Your task to perform on an android device: check google app version Image 0: 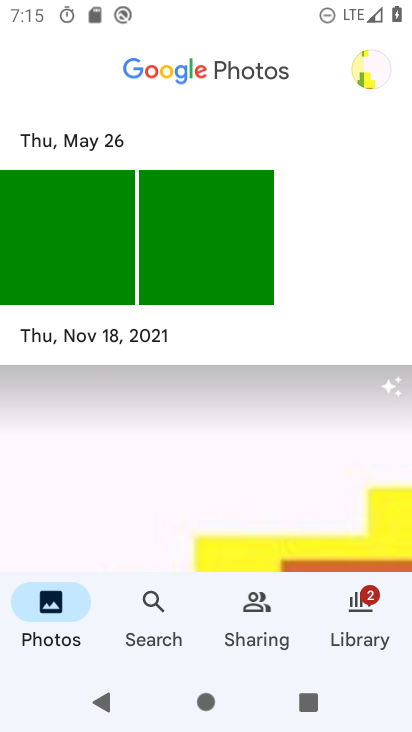
Step 0: press home button
Your task to perform on an android device: check google app version Image 1: 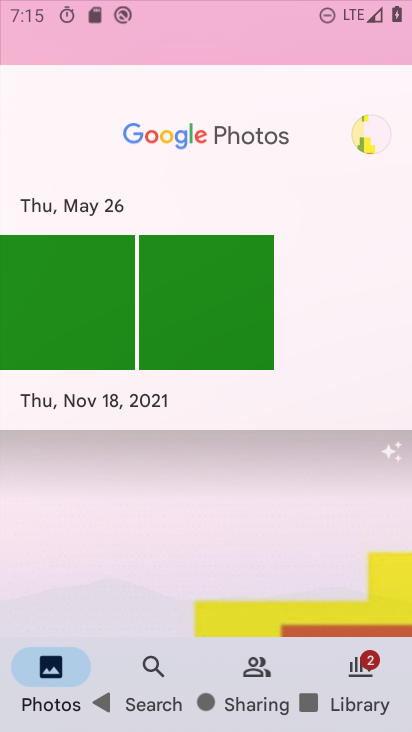
Step 1: drag from (362, 609) to (222, 60)
Your task to perform on an android device: check google app version Image 2: 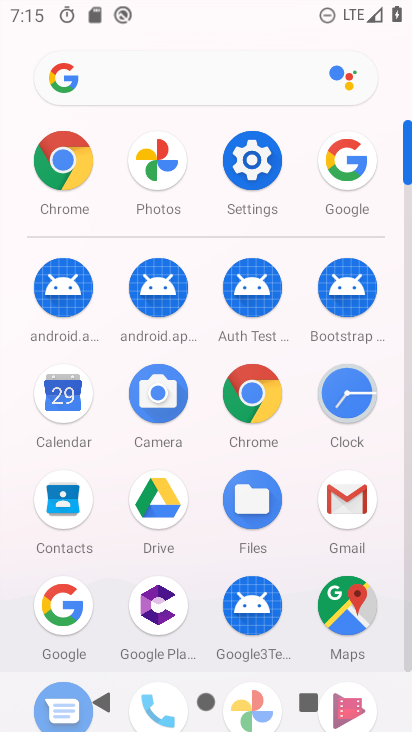
Step 2: click (247, 157)
Your task to perform on an android device: check google app version Image 3: 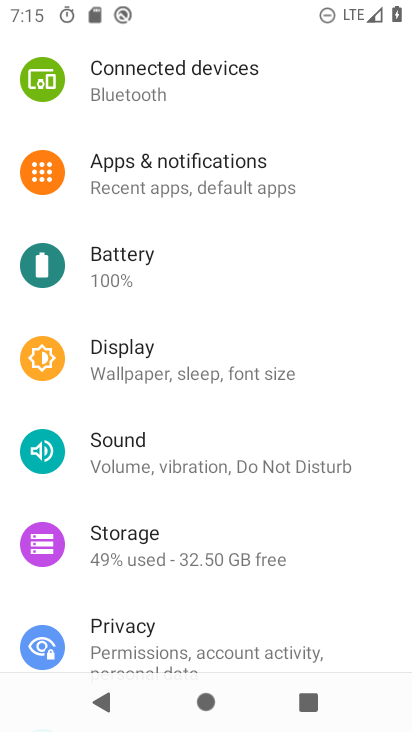
Step 3: drag from (206, 622) to (219, 71)
Your task to perform on an android device: check google app version Image 4: 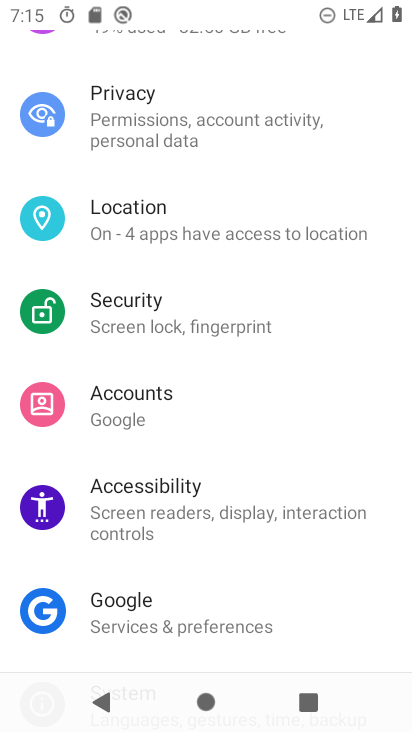
Step 4: drag from (231, 605) to (261, 57)
Your task to perform on an android device: check google app version Image 5: 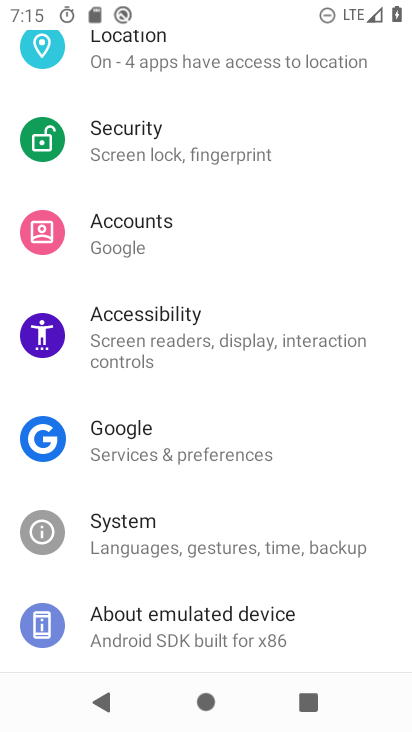
Step 5: click (215, 621)
Your task to perform on an android device: check google app version Image 6: 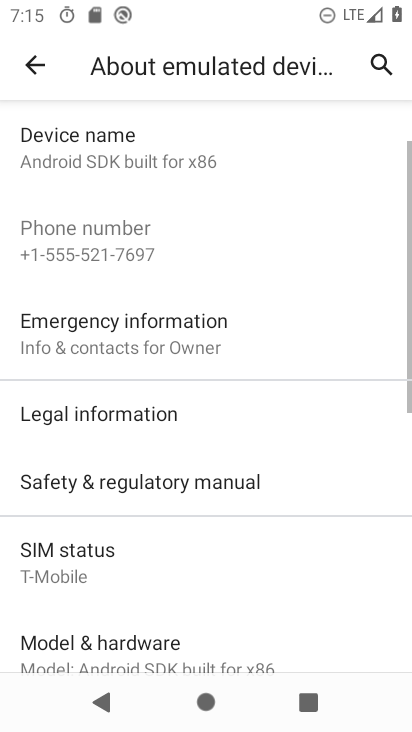
Step 6: drag from (170, 560) to (180, 115)
Your task to perform on an android device: check google app version Image 7: 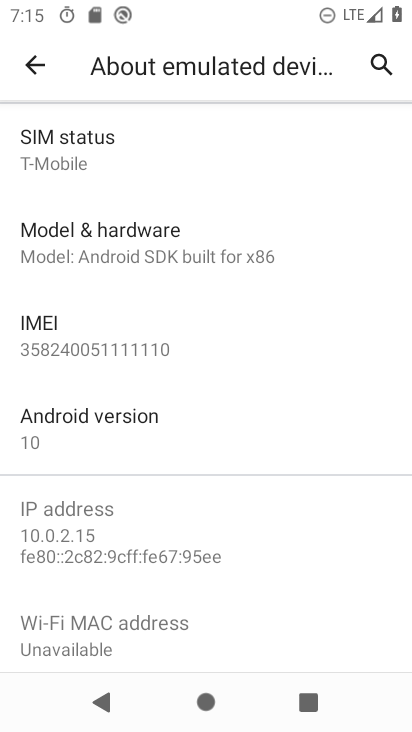
Step 7: click (128, 423)
Your task to perform on an android device: check google app version Image 8: 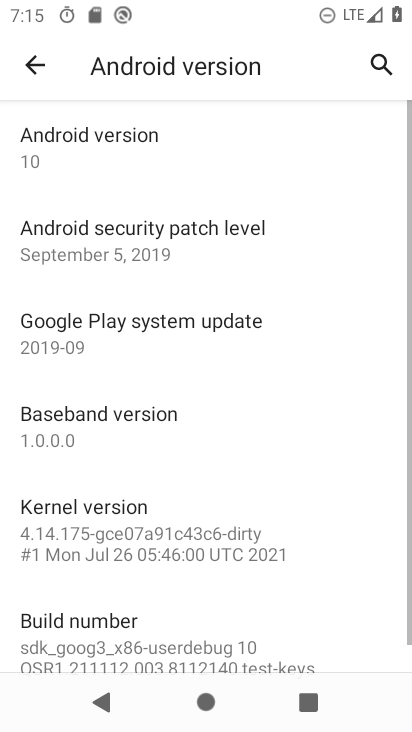
Step 8: task complete